Your task to perform on an android device: open app "Firefox Browser" (install if not already installed), go to login, and select forgot password Image 0: 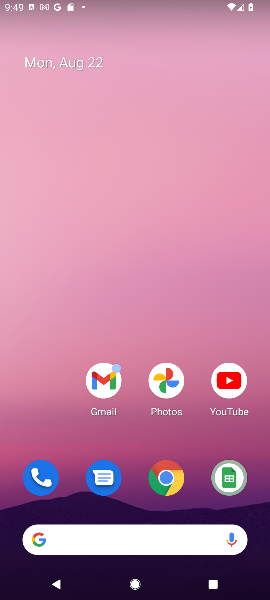
Step 0: drag from (126, 511) to (104, 102)
Your task to perform on an android device: open app "Firefox Browser" (install if not already installed), go to login, and select forgot password Image 1: 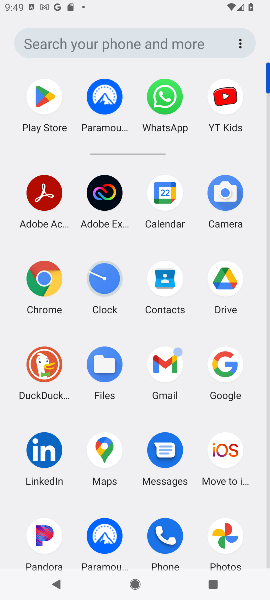
Step 1: click (40, 120)
Your task to perform on an android device: open app "Firefox Browser" (install if not already installed), go to login, and select forgot password Image 2: 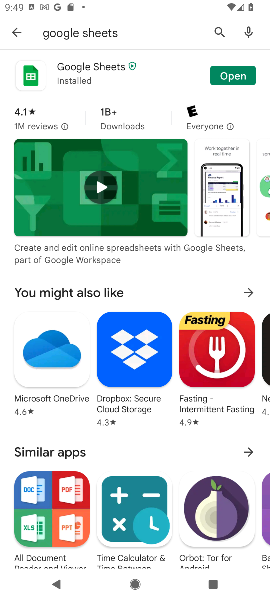
Step 2: click (229, 39)
Your task to perform on an android device: open app "Firefox Browser" (install if not already installed), go to login, and select forgot password Image 3: 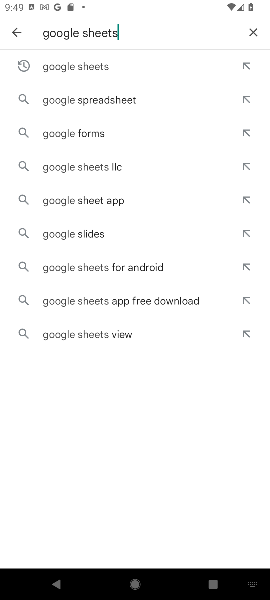
Step 3: click (252, 36)
Your task to perform on an android device: open app "Firefox Browser" (install if not already installed), go to login, and select forgot password Image 4: 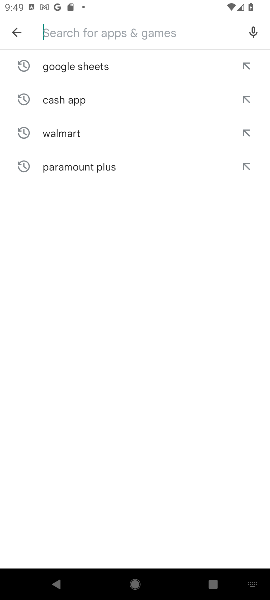
Step 4: type "firefox"
Your task to perform on an android device: open app "Firefox Browser" (install if not already installed), go to login, and select forgot password Image 5: 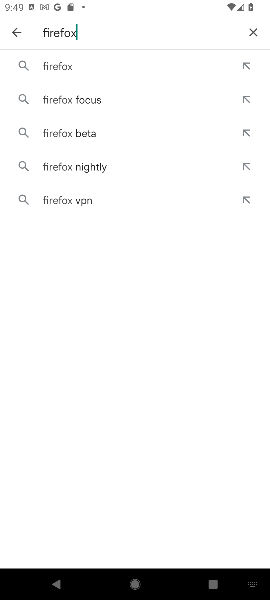
Step 5: click (117, 61)
Your task to perform on an android device: open app "Firefox Browser" (install if not already installed), go to login, and select forgot password Image 6: 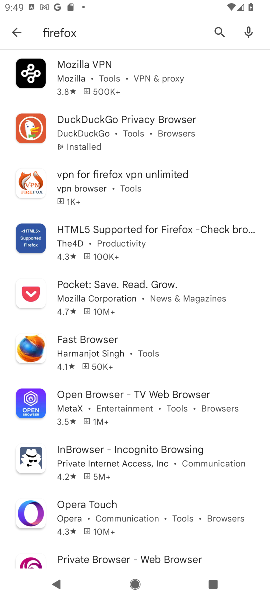
Step 6: task complete